Your task to perform on an android device: Open Maps and search for coffee Image 0: 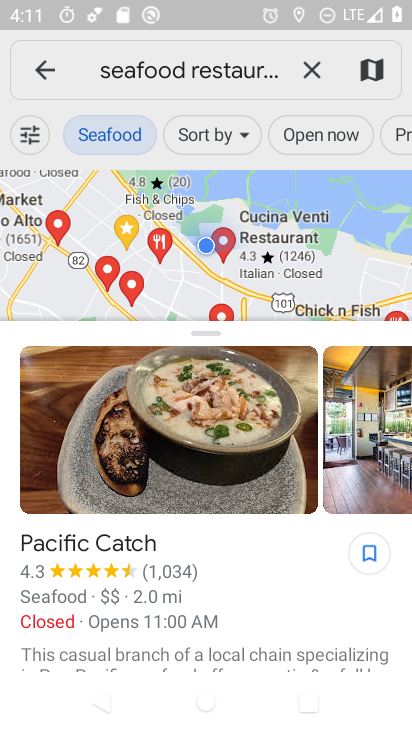
Step 0: press home button
Your task to perform on an android device: Open Maps and search for coffee Image 1: 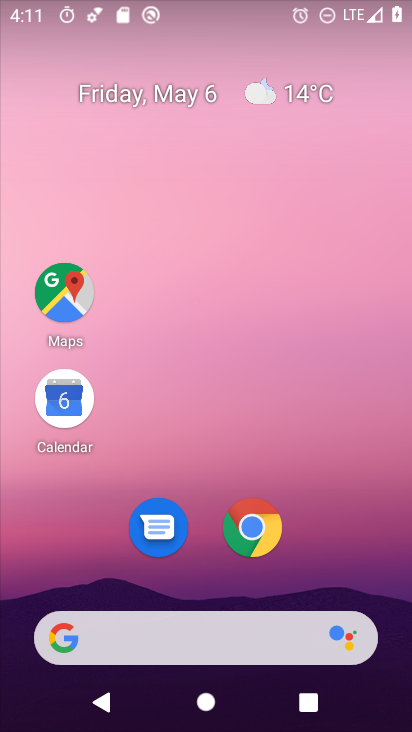
Step 1: drag from (331, 546) to (347, 118)
Your task to perform on an android device: Open Maps and search for coffee Image 2: 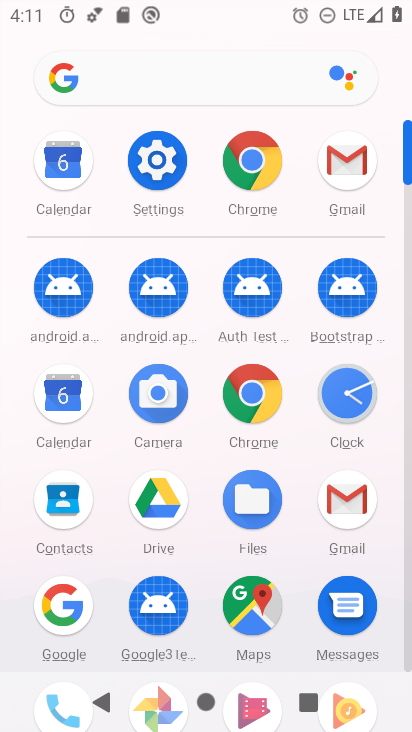
Step 2: click (251, 611)
Your task to perform on an android device: Open Maps and search for coffee Image 3: 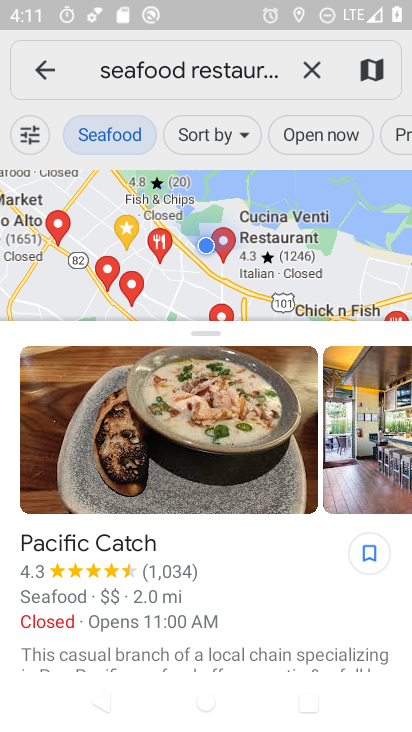
Step 3: click (197, 65)
Your task to perform on an android device: Open Maps and search for coffee Image 4: 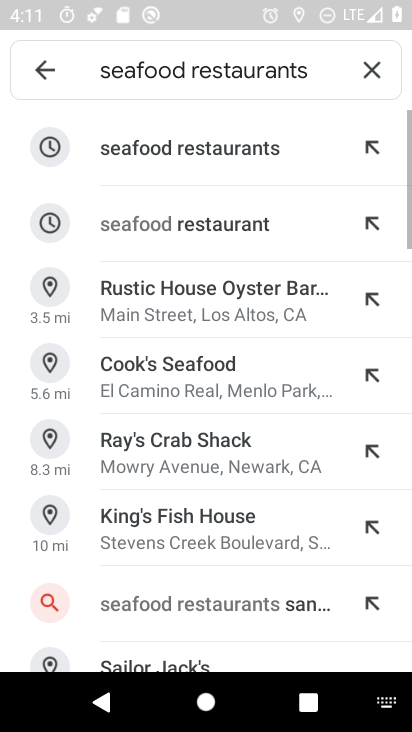
Step 4: click (372, 67)
Your task to perform on an android device: Open Maps and search for coffee Image 5: 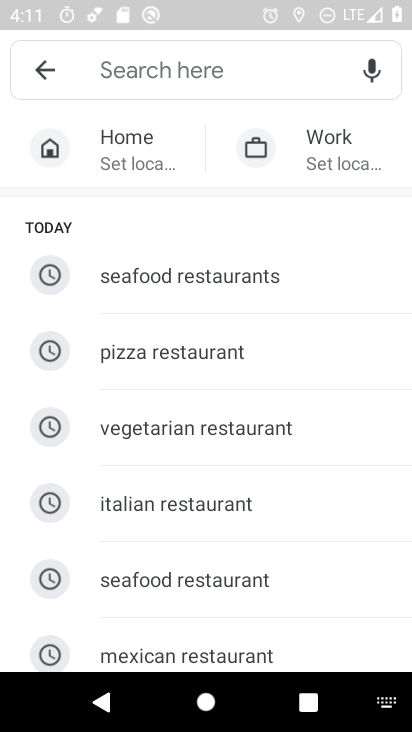
Step 5: type "coffee"
Your task to perform on an android device: Open Maps and search for coffee Image 6: 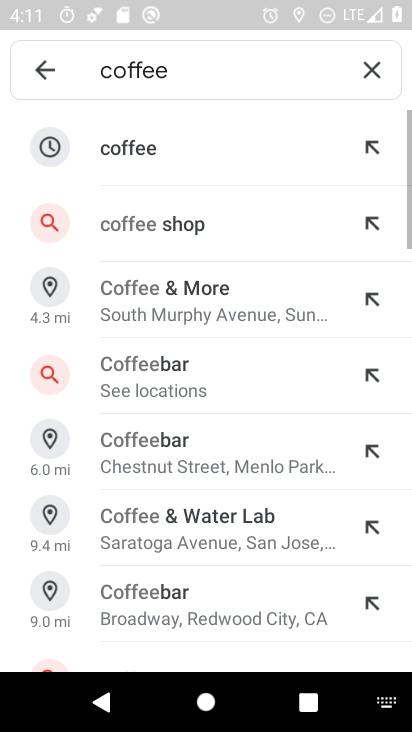
Step 6: click (156, 154)
Your task to perform on an android device: Open Maps and search for coffee Image 7: 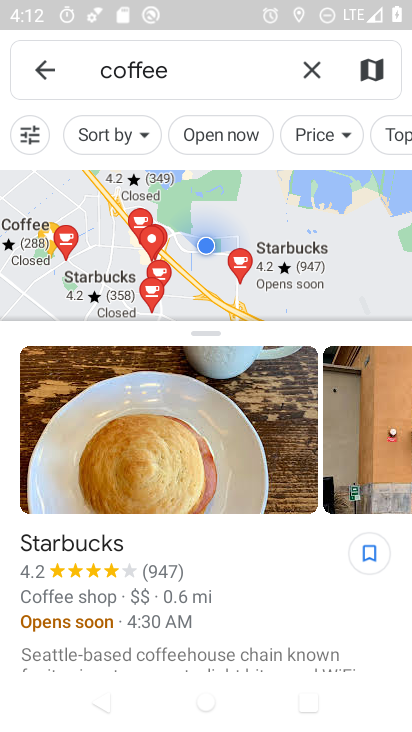
Step 7: task complete